Your task to perform on an android device: turn on wifi Image 0: 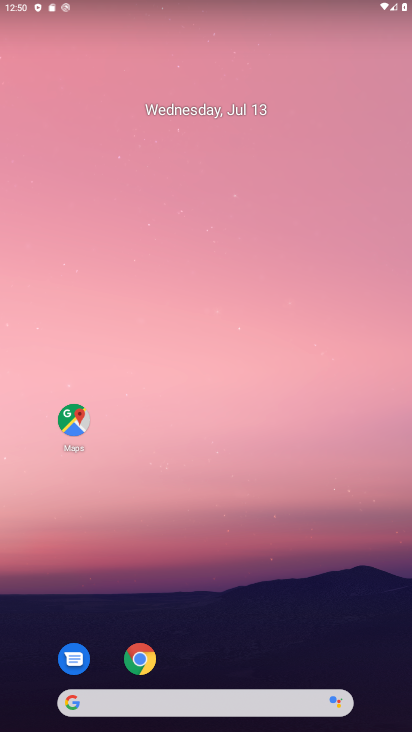
Step 0: drag from (284, 618) to (267, 2)
Your task to perform on an android device: turn on wifi Image 1: 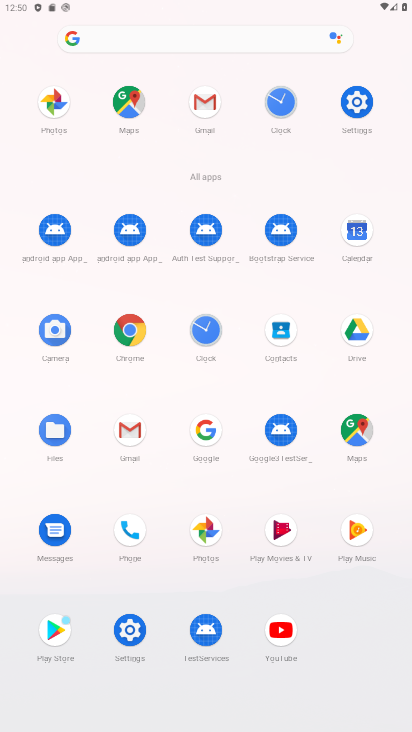
Step 1: click (132, 641)
Your task to perform on an android device: turn on wifi Image 2: 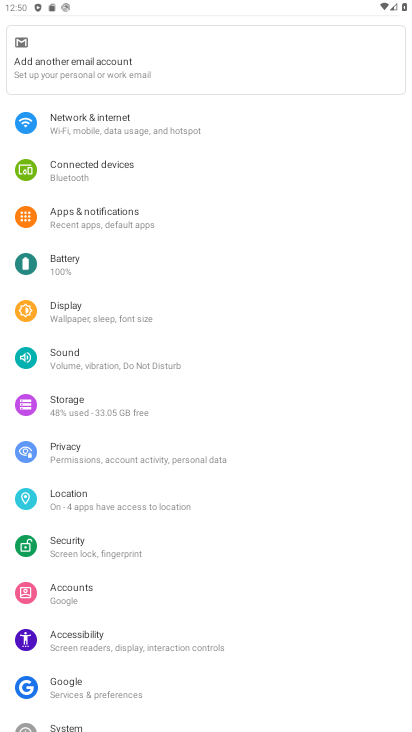
Step 2: click (155, 116)
Your task to perform on an android device: turn on wifi Image 3: 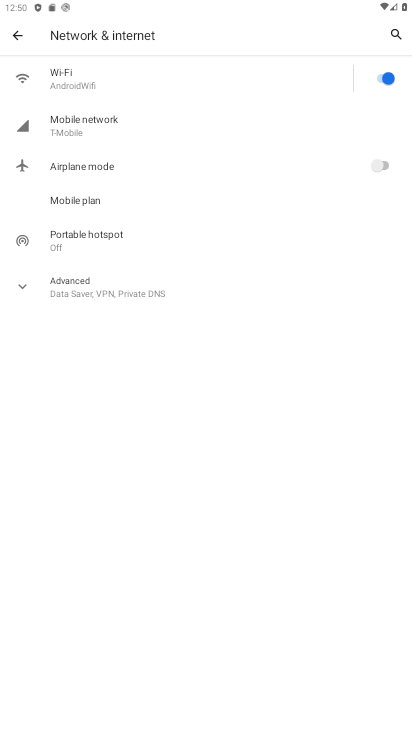
Step 3: task complete